Your task to perform on an android device: turn off priority inbox in the gmail app Image 0: 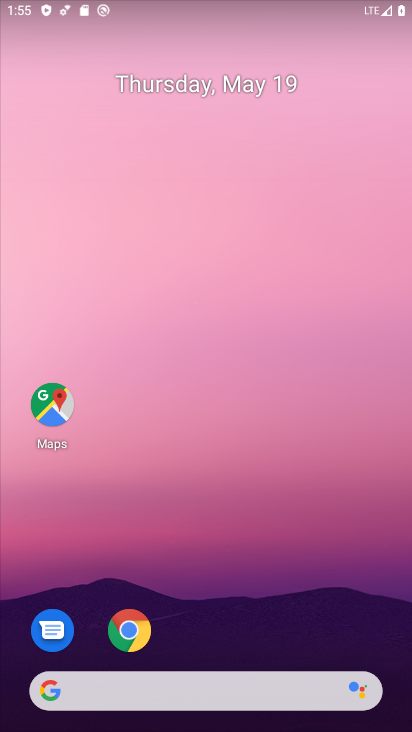
Step 0: drag from (196, 528) to (216, 26)
Your task to perform on an android device: turn off priority inbox in the gmail app Image 1: 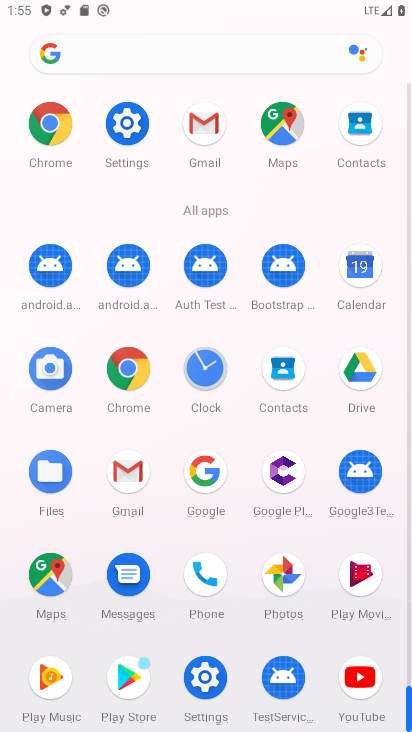
Step 1: drag from (12, 535) to (31, 126)
Your task to perform on an android device: turn off priority inbox in the gmail app Image 2: 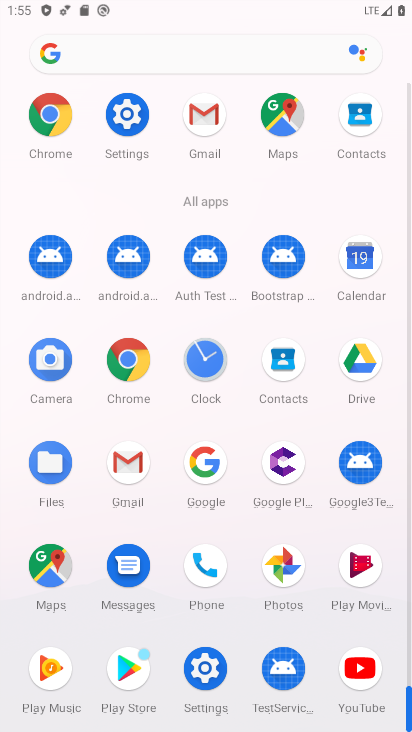
Step 2: click (125, 458)
Your task to perform on an android device: turn off priority inbox in the gmail app Image 3: 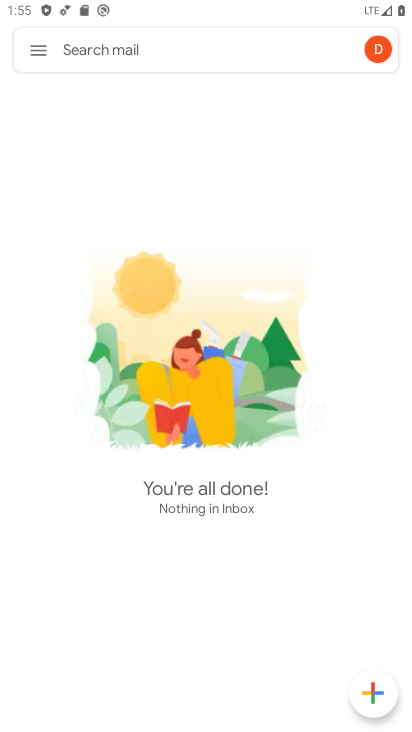
Step 3: click (28, 54)
Your task to perform on an android device: turn off priority inbox in the gmail app Image 4: 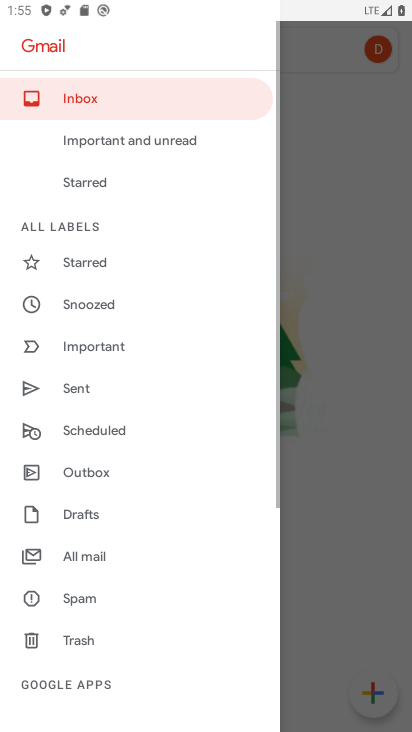
Step 4: drag from (102, 623) to (150, 140)
Your task to perform on an android device: turn off priority inbox in the gmail app Image 5: 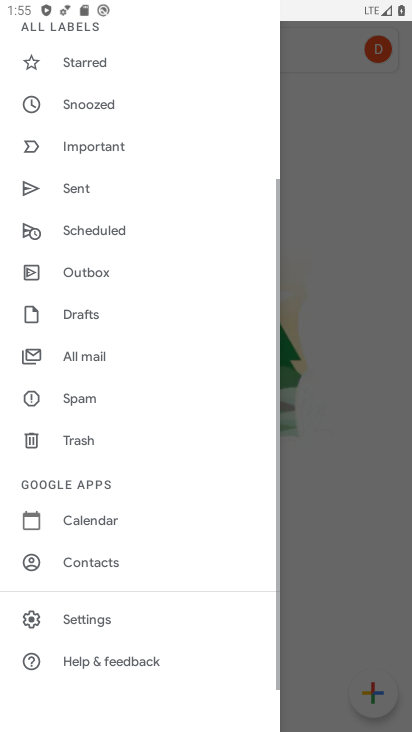
Step 5: click (101, 615)
Your task to perform on an android device: turn off priority inbox in the gmail app Image 6: 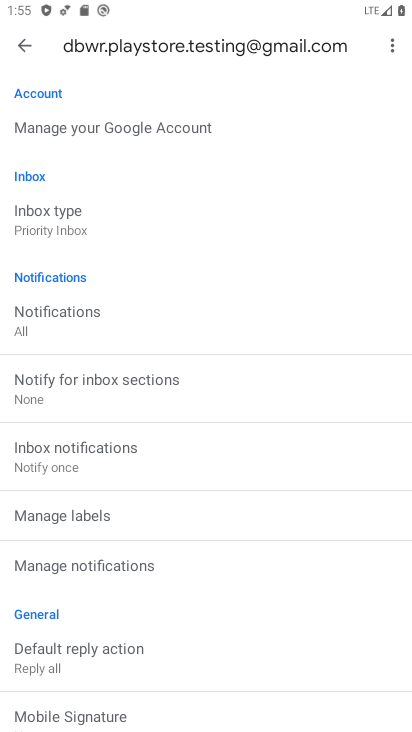
Step 6: click (101, 217)
Your task to perform on an android device: turn off priority inbox in the gmail app Image 7: 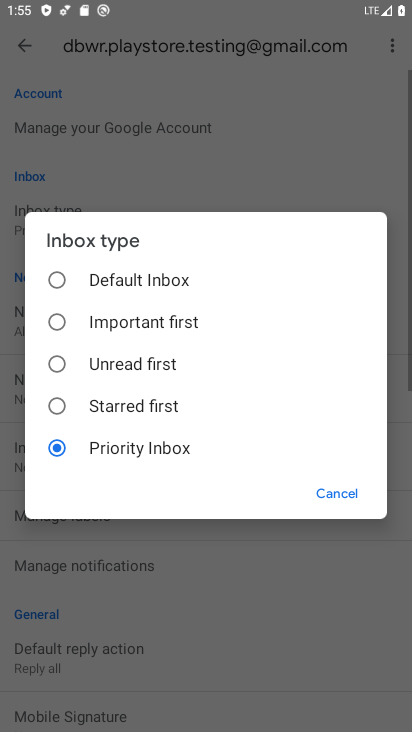
Step 7: click (138, 290)
Your task to perform on an android device: turn off priority inbox in the gmail app Image 8: 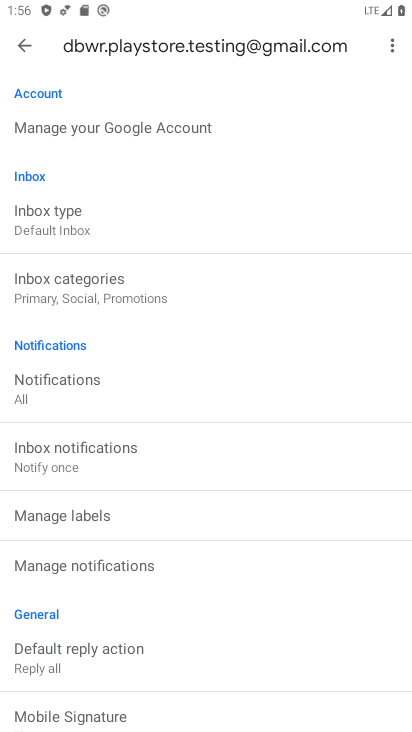
Step 8: task complete